Your task to perform on an android device: delete location history Image 0: 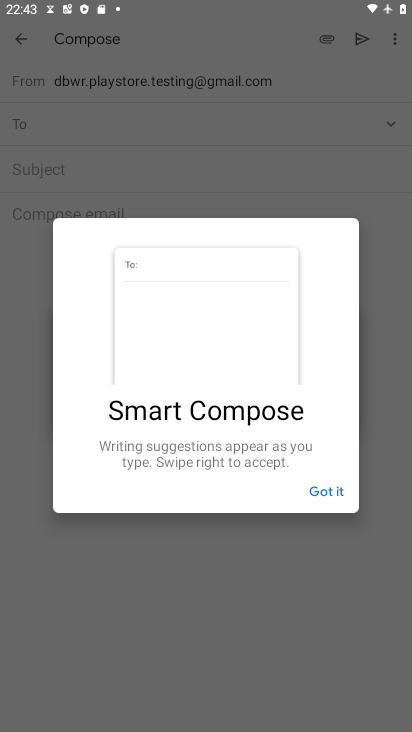
Step 0: press home button
Your task to perform on an android device: delete location history Image 1: 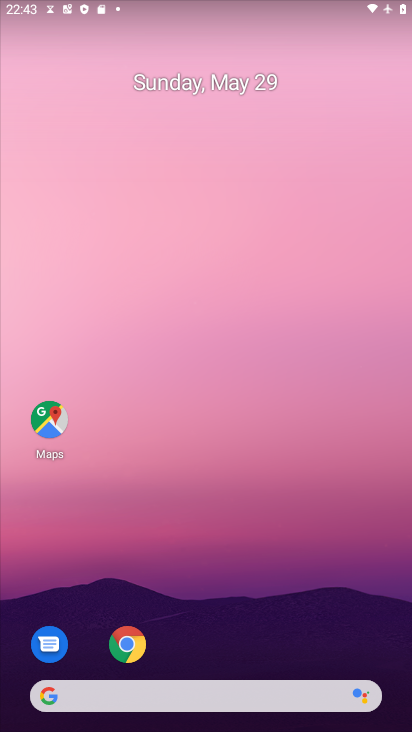
Step 1: drag from (232, 625) to (251, 188)
Your task to perform on an android device: delete location history Image 2: 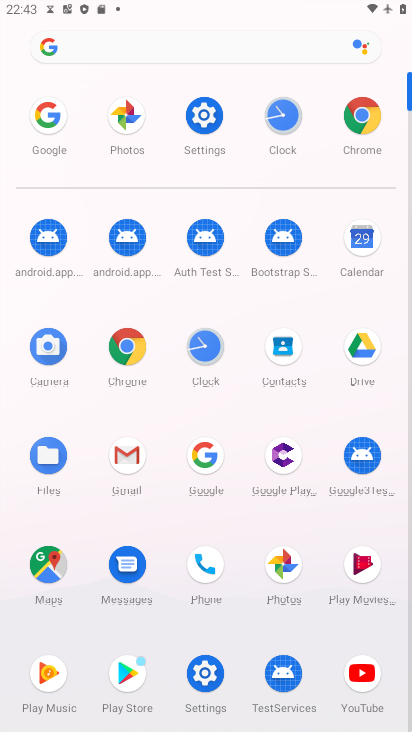
Step 2: click (41, 559)
Your task to perform on an android device: delete location history Image 3: 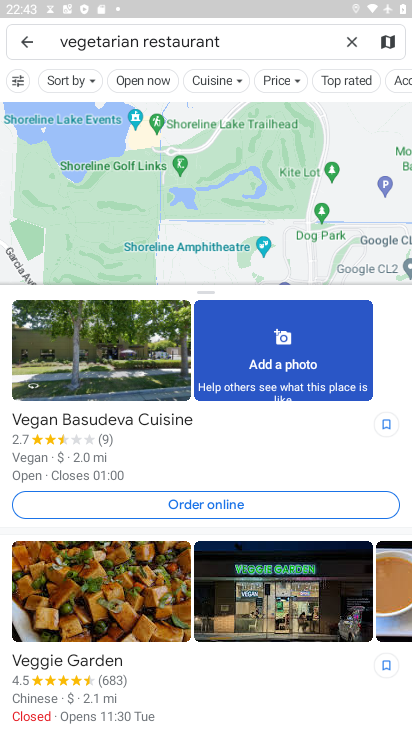
Step 3: click (347, 43)
Your task to perform on an android device: delete location history Image 4: 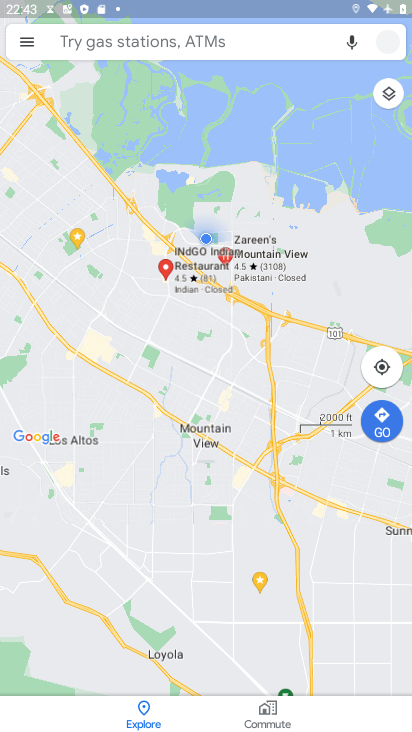
Step 4: click (28, 38)
Your task to perform on an android device: delete location history Image 5: 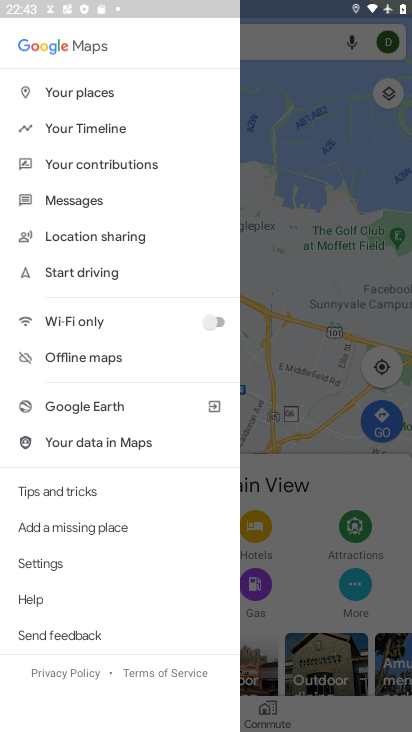
Step 5: click (120, 129)
Your task to perform on an android device: delete location history Image 6: 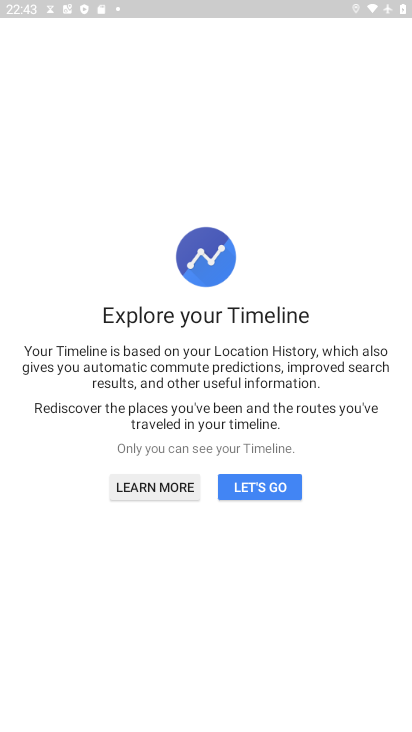
Step 6: click (230, 481)
Your task to perform on an android device: delete location history Image 7: 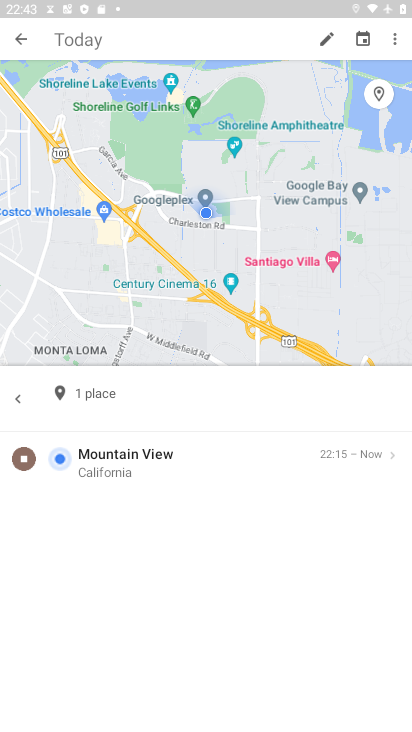
Step 7: click (397, 35)
Your task to perform on an android device: delete location history Image 8: 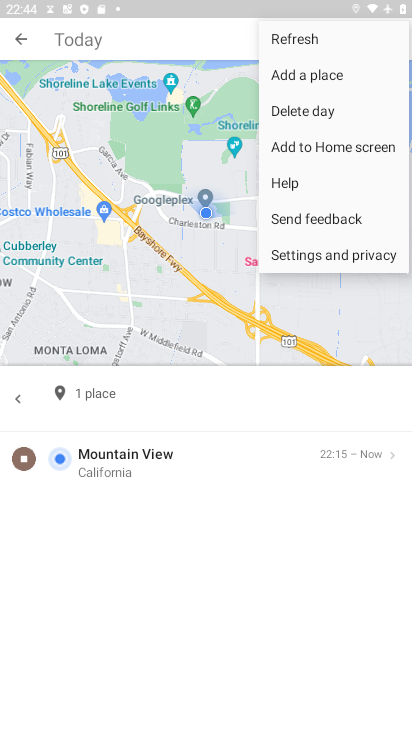
Step 8: click (299, 554)
Your task to perform on an android device: delete location history Image 9: 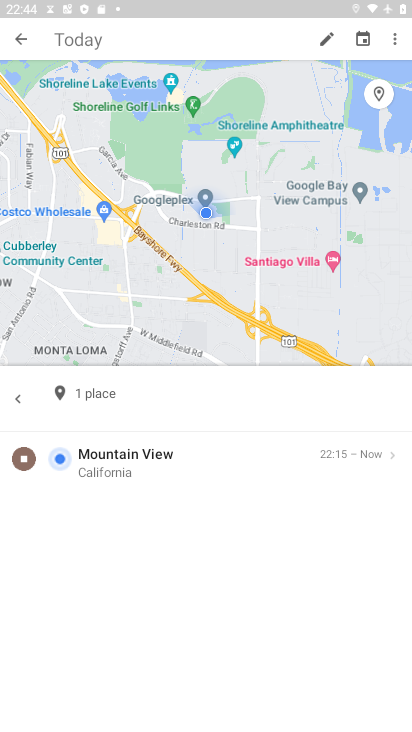
Step 9: click (396, 37)
Your task to perform on an android device: delete location history Image 10: 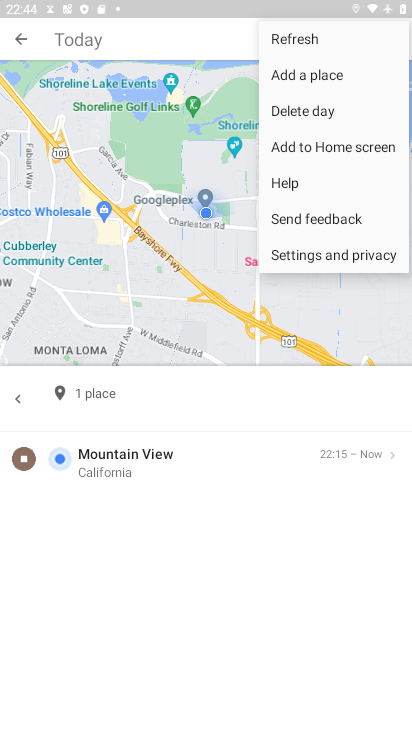
Step 10: click (308, 254)
Your task to perform on an android device: delete location history Image 11: 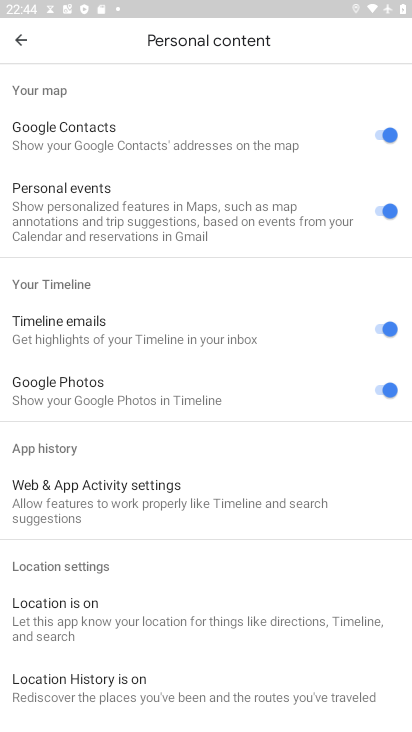
Step 11: drag from (82, 598) to (108, 133)
Your task to perform on an android device: delete location history Image 12: 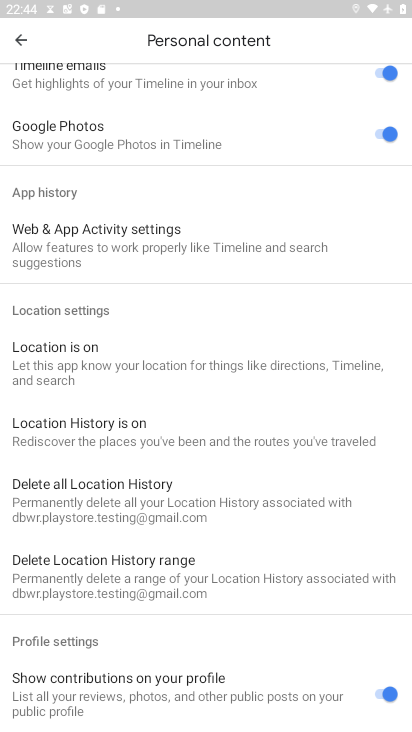
Step 12: click (145, 480)
Your task to perform on an android device: delete location history Image 13: 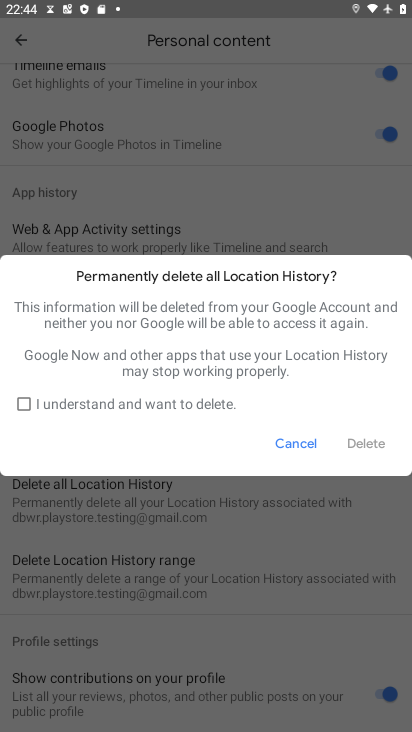
Step 13: click (45, 408)
Your task to perform on an android device: delete location history Image 14: 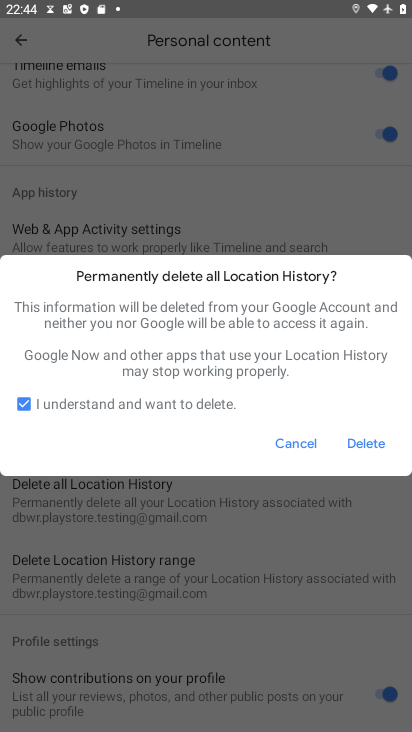
Step 14: click (350, 442)
Your task to perform on an android device: delete location history Image 15: 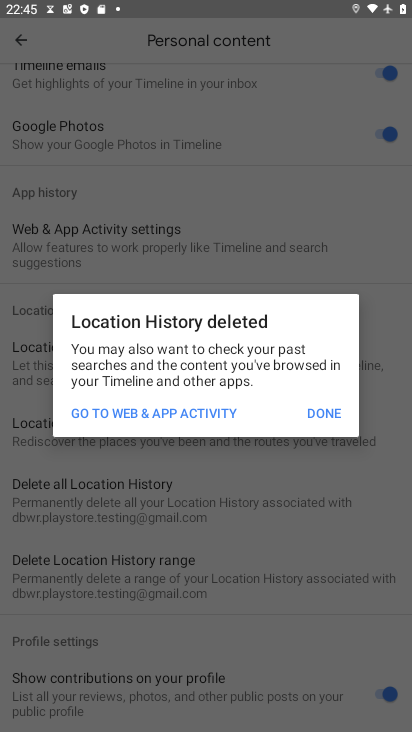
Step 15: click (311, 419)
Your task to perform on an android device: delete location history Image 16: 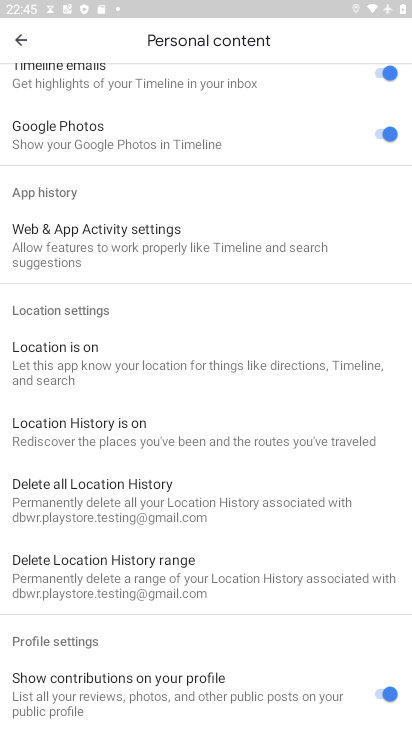
Step 16: click (157, 501)
Your task to perform on an android device: delete location history Image 17: 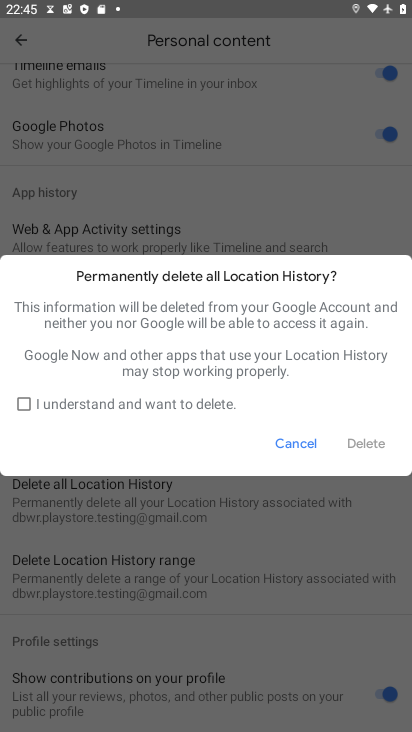
Step 17: click (9, 408)
Your task to perform on an android device: delete location history Image 18: 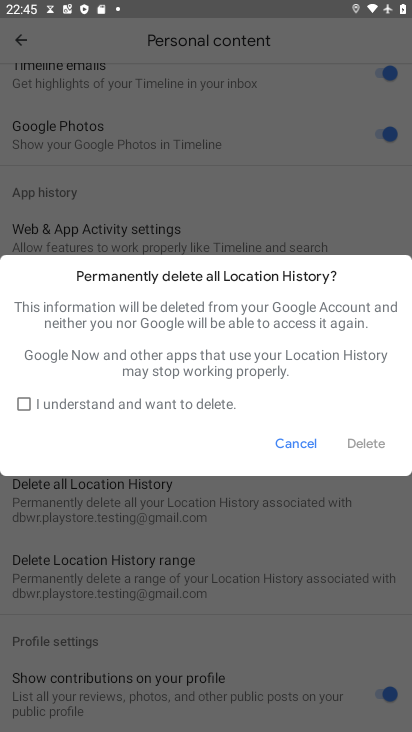
Step 18: click (362, 432)
Your task to perform on an android device: delete location history Image 19: 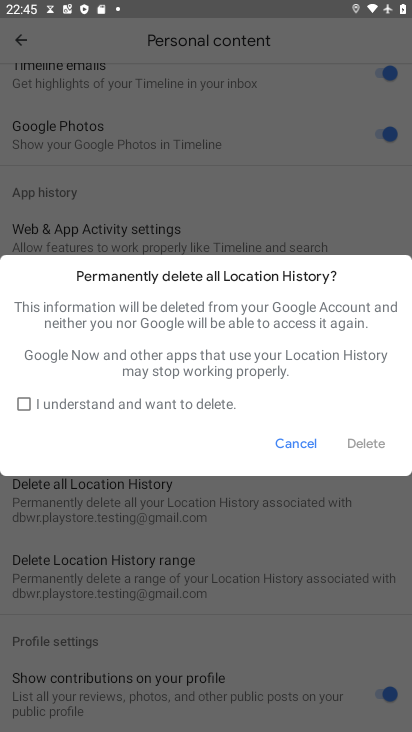
Step 19: click (29, 397)
Your task to perform on an android device: delete location history Image 20: 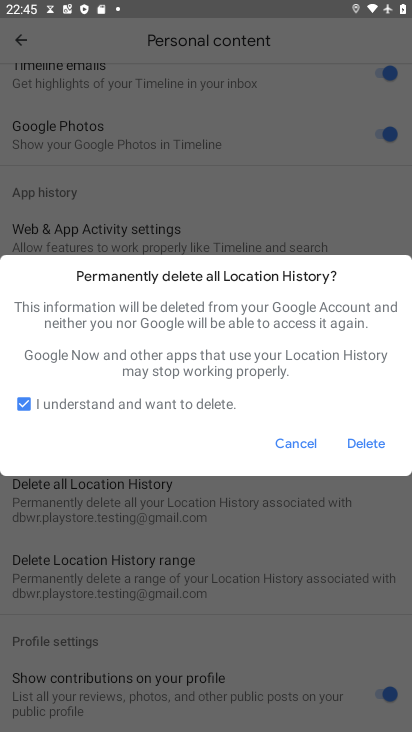
Step 20: click (359, 442)
Your task to perform on an android device: delete location history Image 21: 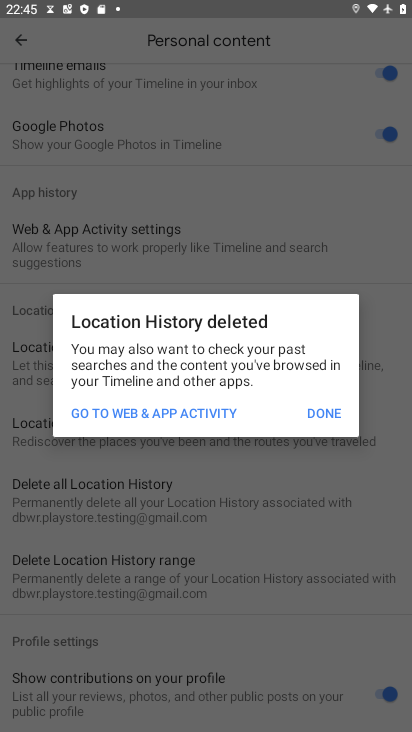
Step 21: task complete